Your task to perform on an android device: Go to display settings Image 0: 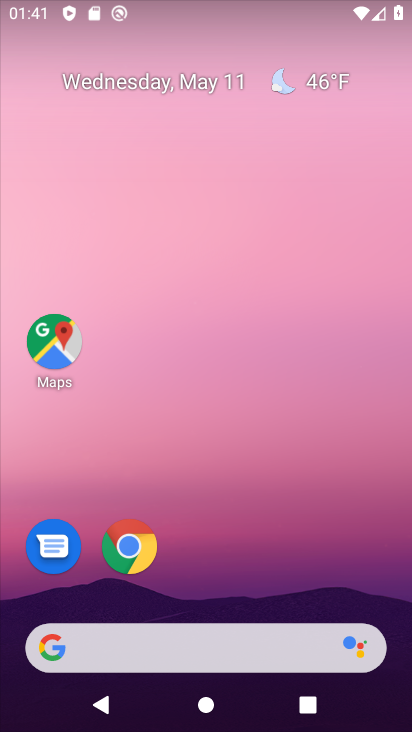
Step 0: drag from (182, 592) to (299, 155)
Your task to perform on an android device: Go to display settings Image 1: 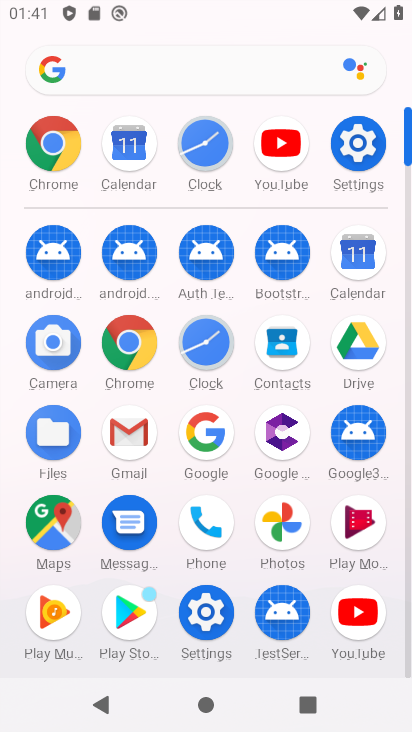
Step 1: click (207, 609)
Your task to perform on an android device: Go to display settings Image 2: 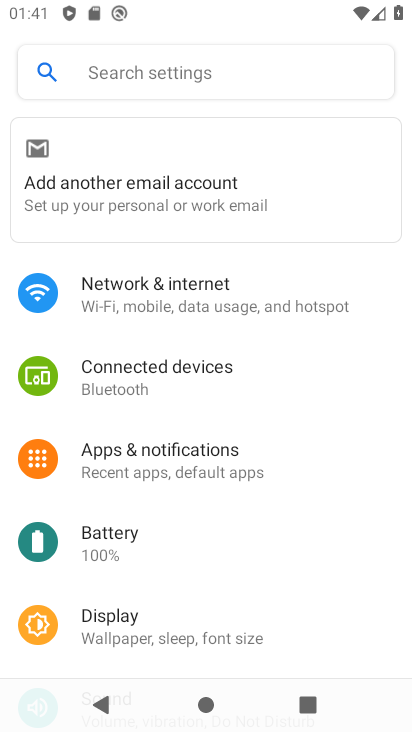
Step 2: click (139, 600)
Your task to perform on an android device: Go to display settings Image 3: 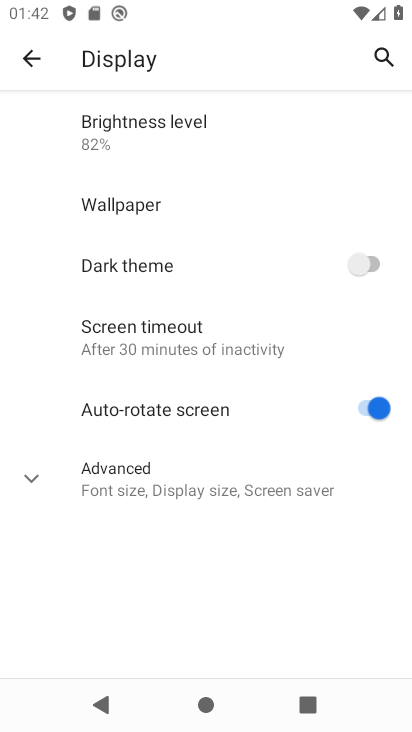
Step 3: task complete